Your task to perform on an android device: toggle data saver in the chrome app Image 0: 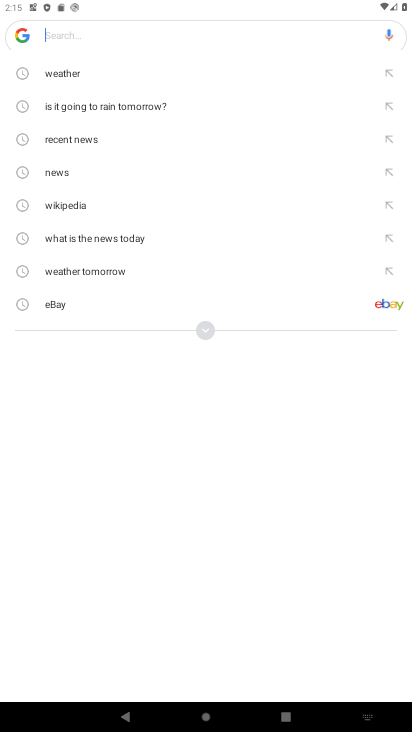
Step 0: press home button
Your task to perform on an android device: toggle data saver in the chrome app Image 1: 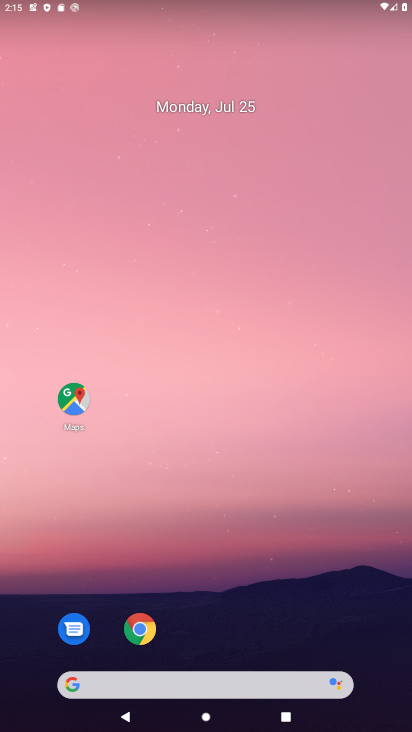
Step 1: click (141, 610)
Your task to perform on an android device: toggle data saver in the chrome app Image 2: 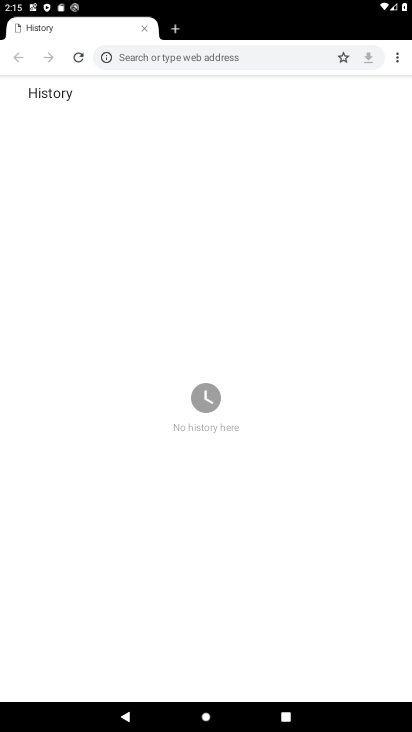
Step 2: click (396, 56)
Your task to perform on an android device: toggle data saver in the chrome app Image 3: 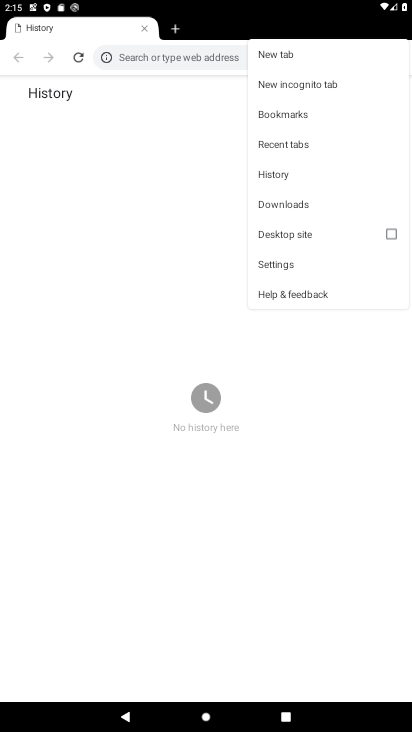
Step 3: click (287, 270)
Your task to perform on an android device: toggle data saver in the chrome app Image 4: 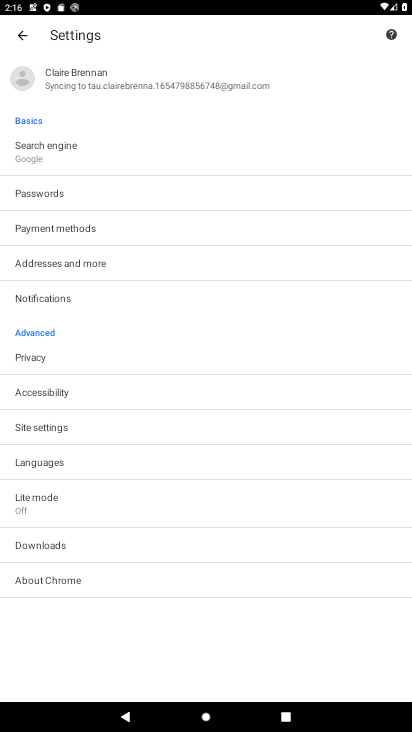
Step 4: click (50, 500)
Your task to perform on an android device: toggle data saver in the chrome app Image 5: 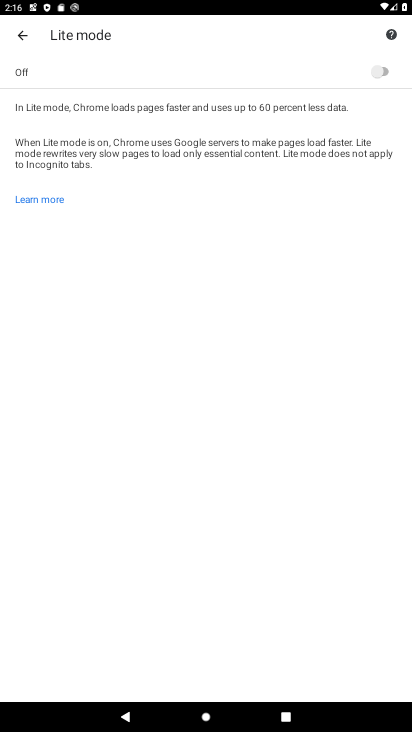
Step 5: click (350, 76)
Your task to perform on an android device: toggle data saver in the chrome app Image 6: 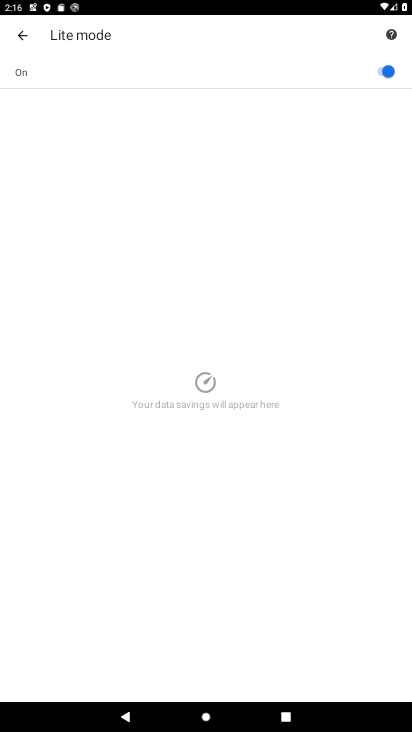
Step 6: task complete